Your task to perform on an android device: turn on the 24-hour format for clock Image 0: 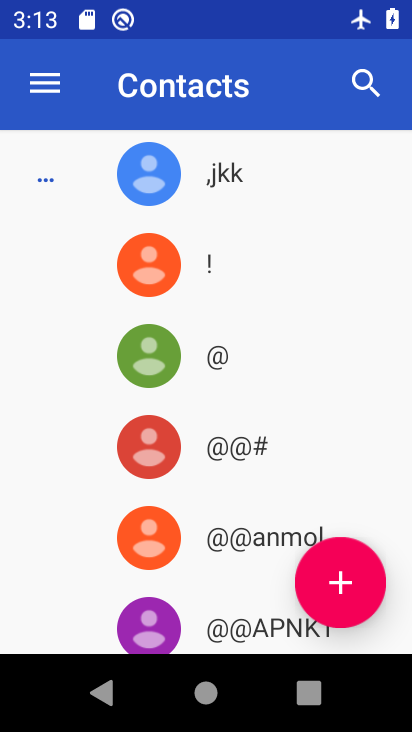
Step 0: press home button
Your task to perform on an android device: turn on the 24-hour format for clock Image 1: 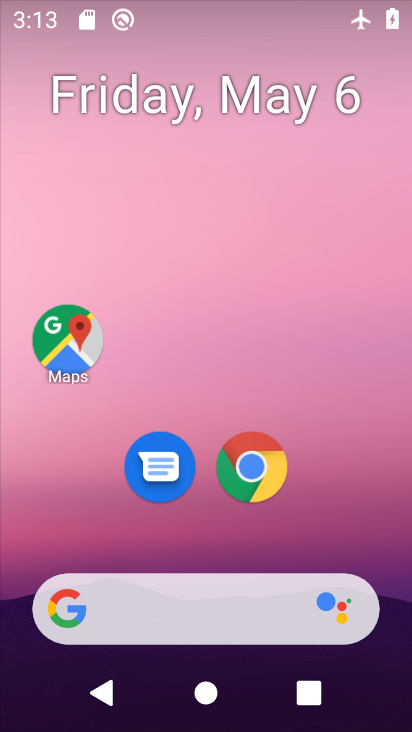
Step 1: drag from (400, 672) to (411, 93)
Your task to perform on an android device: turn on the 24-hour format for clock Image 2: 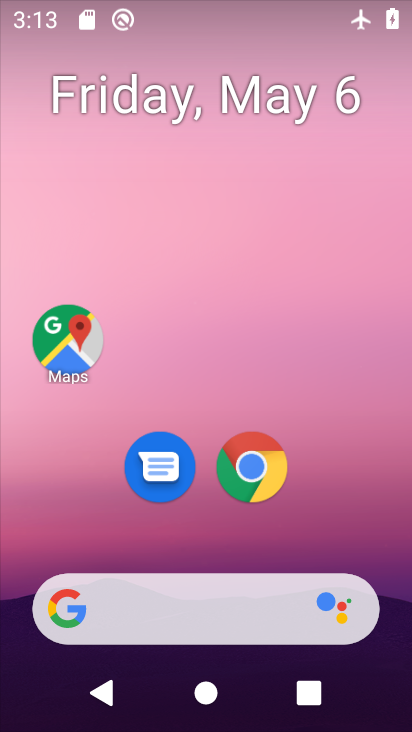
Step 2: click (374, 189)
Your task to perform on an android device: turn on the 24-hour format for clock Image 3: 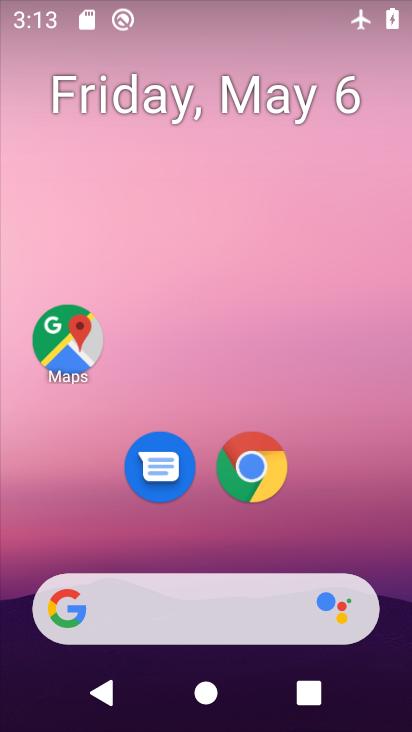
Step 3: drag from (399, 550) to (377, 170)
Your task to perform on an android device: turn on the 24-hour format for clock Image 4: 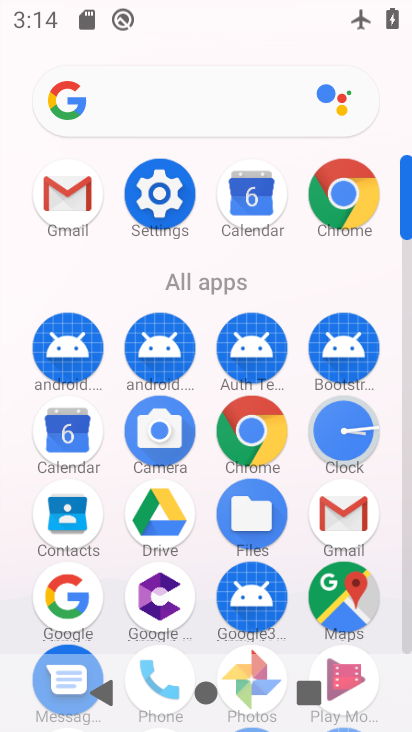
Step 4: click (340, 435)
Your task to perform on an android device: turn on the 24-hour format for clock Image 5: 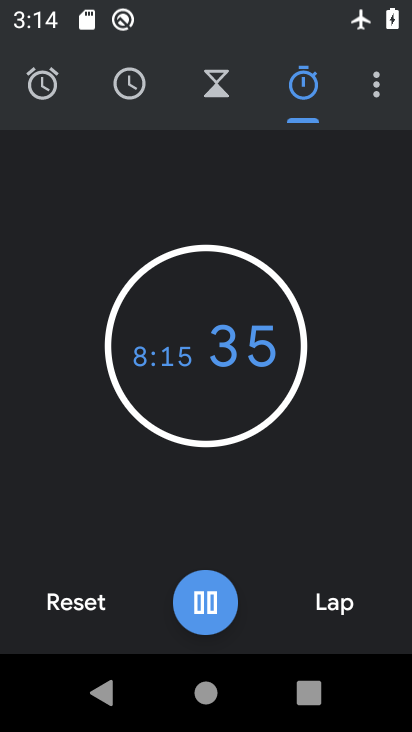
Step 5: click (143, 87)
Your task to perform on an android device: turn on the 24-hour format for clock Image 6: 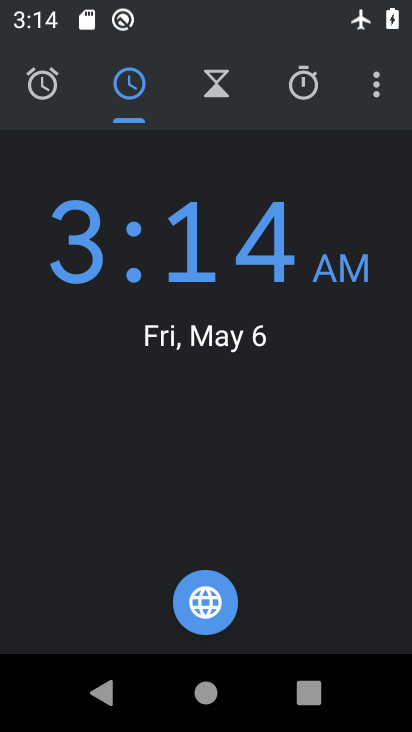
Step 6: click (374, 84)
Your task to perform on an android device: turn on the 24-hour format for clock Image 7: 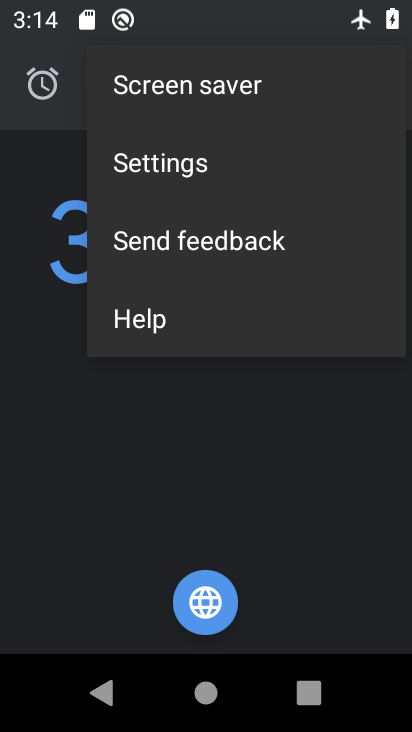
Step 7: click (155, 164)
Your task to perform on an android device: turn on the 24-hour format for clock Image 8: 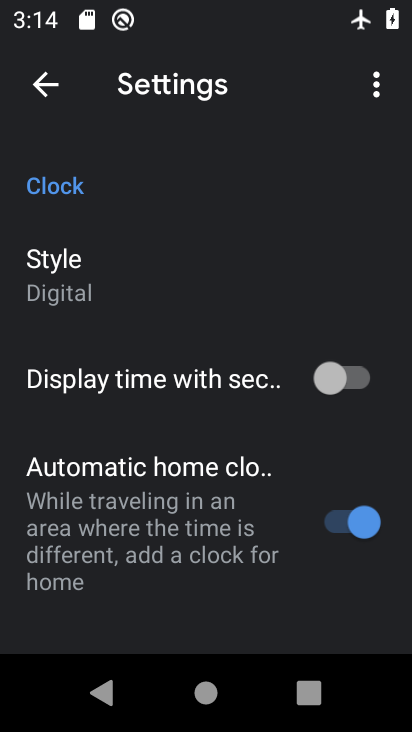
Step 8: drag from (213, 528) to (227, 285)
Your task to perform on an android device: turn on the 24-hour format for clock Image 9: 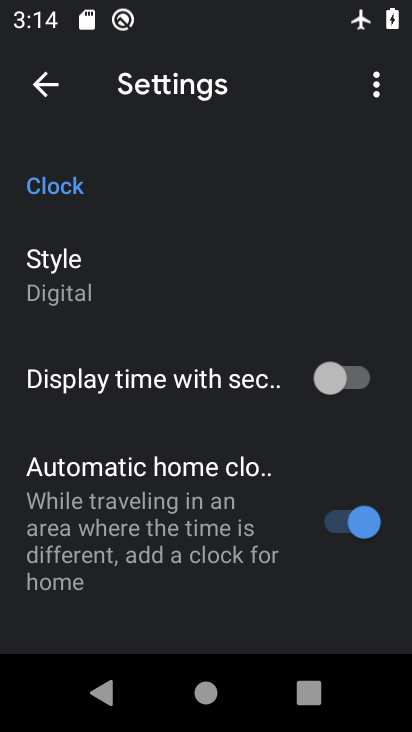
Step 9: drag from (229, 633) to (249, 335)
Your task to perform on an android device: turn on the 24-hour format for clock Image 10: 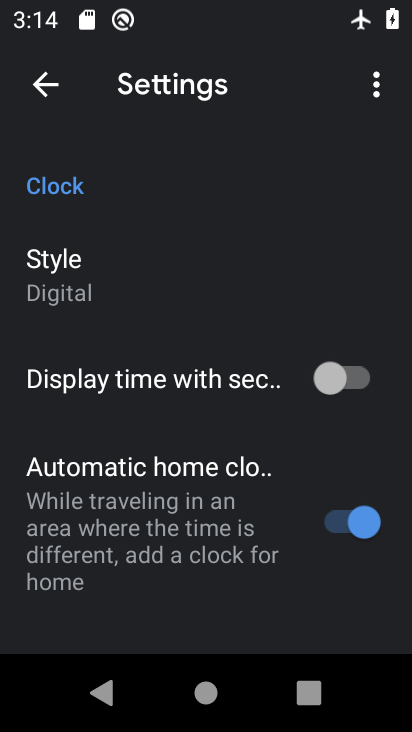
Step 10: drag from (284, 556) to (299, 196)
Your task to perform on an android device: turn on the 24-hour format for clock Image 11: 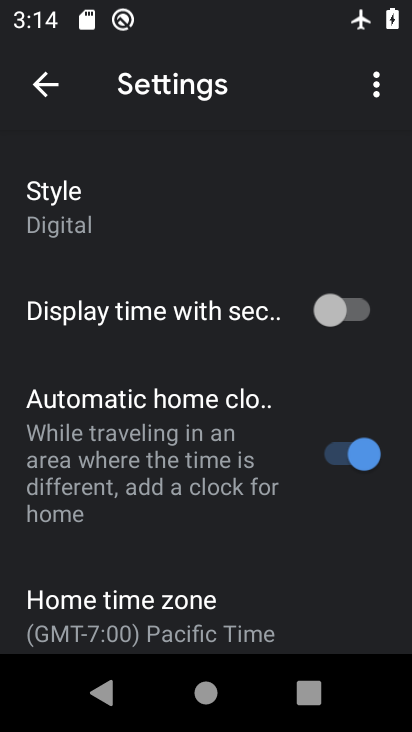
Step 11: drag from (258, 550) to (252, 204)
Your task to perform on an android device: turn on the 24-hour format for clock Image 12: 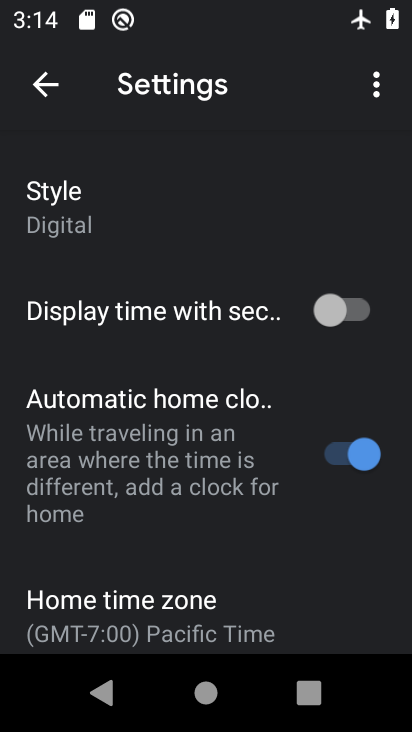
Step 12: drag from (253, 599) to (264, 273)
Your task to perform on an android device: turn on the 24-hour format for clock Image 13: 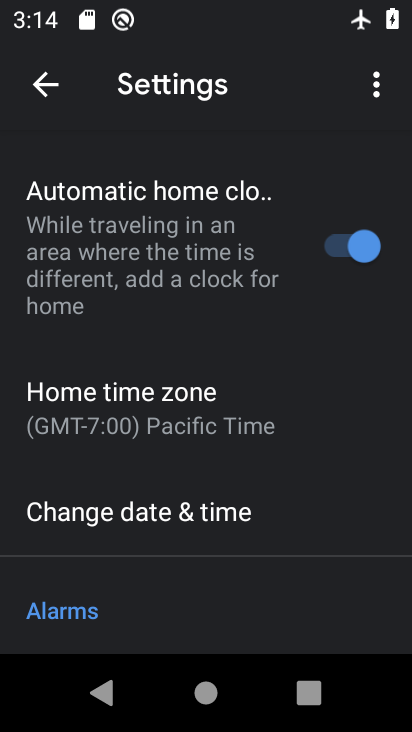
Step 13: drag from (268, 558) to (280, 276)
Your task to perform on an android device: turn on the 24-hour format for clock Image 14: 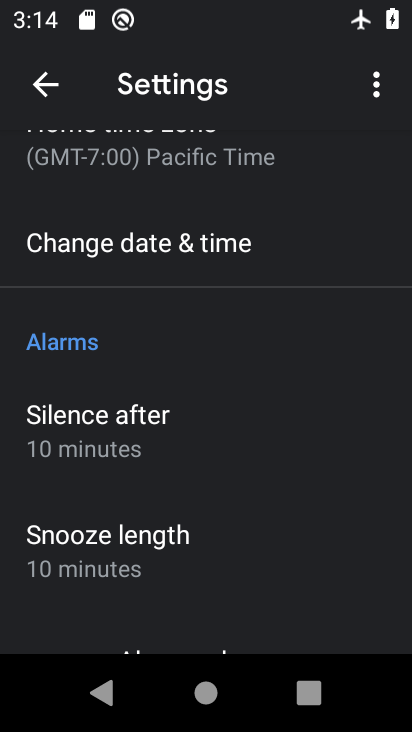
Step 14: click (107, 240)
Your task to perform on an android device: turn on the 24-hour format for clock Image 15: 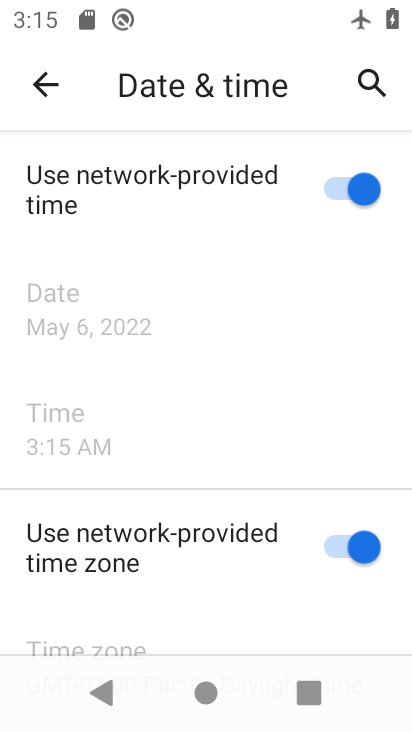
Step 15: drag from (265, 506) to (243, 302)
Your task to perform on an android device: turn on the 24-hour format for clock Image 16: 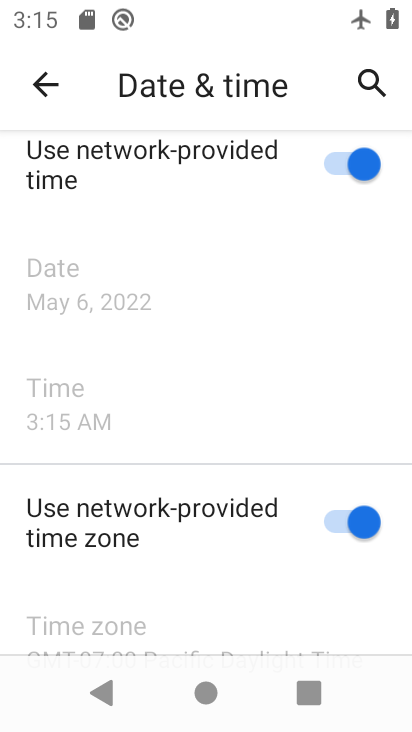
Step 16: drag from (231, 623) to (217, 286)
Your task to perform on an android device: turn on the 24-hour format for clock Image 17: 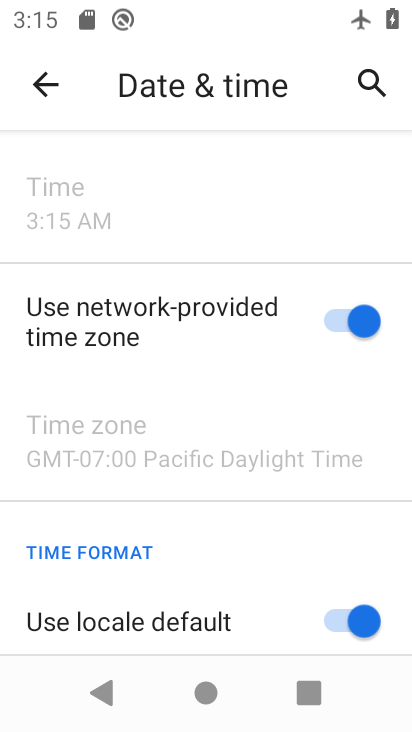
Step 17: drag from (250, 622) to (273, 233)
Your task to perform on an android device: turn on the 24-hour format for clock Image 18: 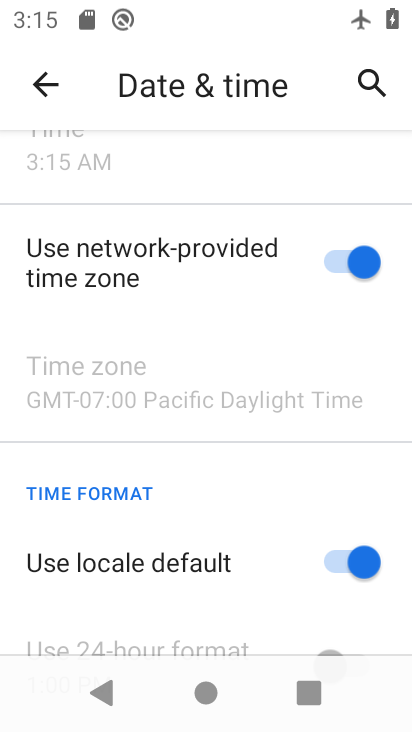
Step 18: drag from (255, 536) to (275, 336)
Your task to perform on an android device: turn on the 24-hour format for clock Image 19: 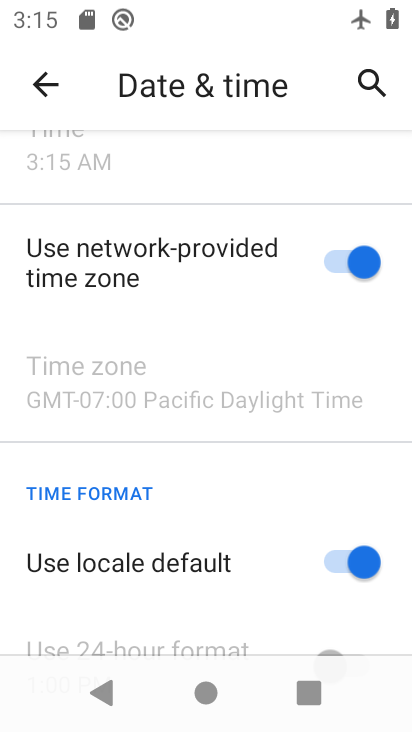
Step 19: drag from (233, 602) to (258, 344)
Your task to perform on an android device: turn on the 24-hour format for clock Image 20: 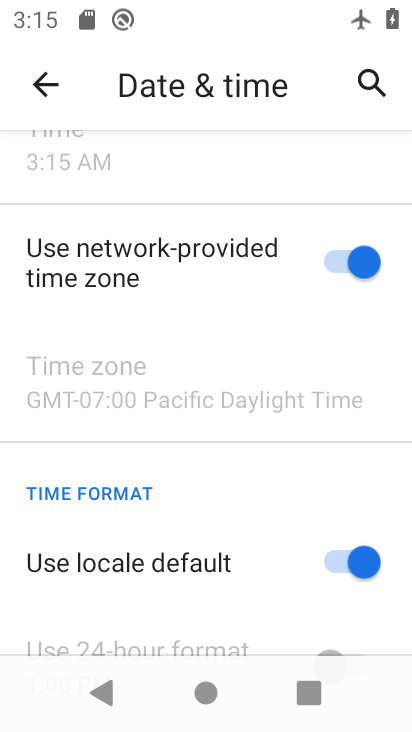
Step 20: click (325, 564)
Your task to perform on an android device: turn on the 24-hour format for clock Image 21: 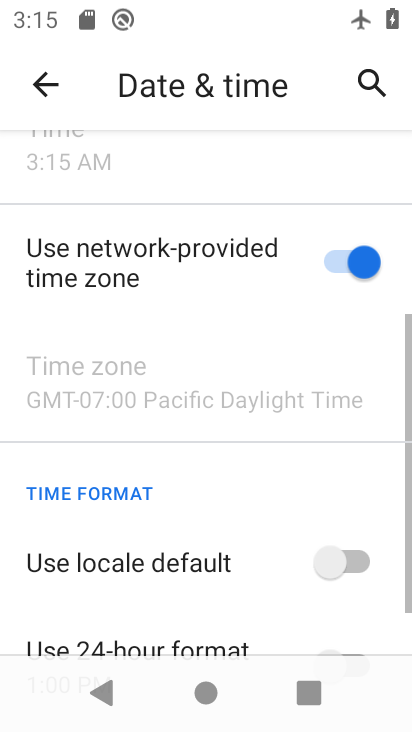
Step 21: drag from (203, 629) to (220, 357)
Your task to perform on an android device: turn on the 24-hour format for clock Image 22: 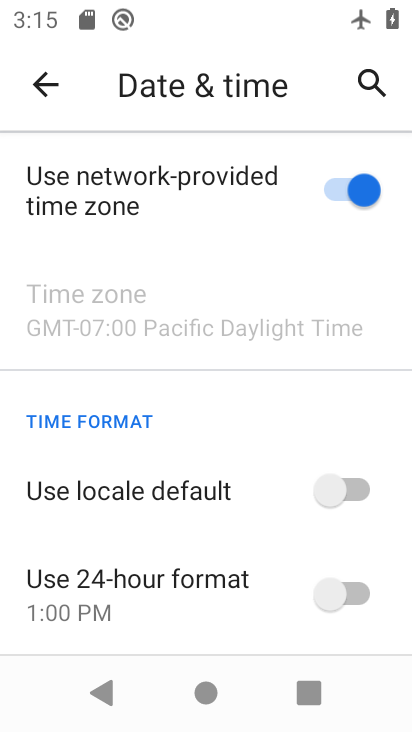
Step 22: click (360, 592)
Your task to perform on an android device: turn on the 24-hour format for clock Image 23: 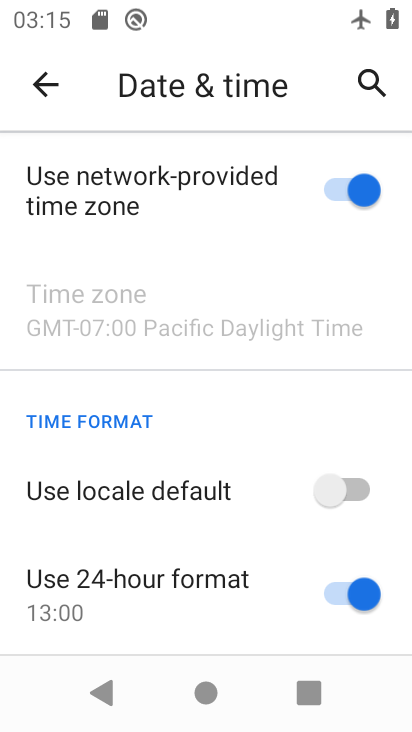
Step 23: task complete